Your task to perform on an android device: Go to internet settings Image 0: 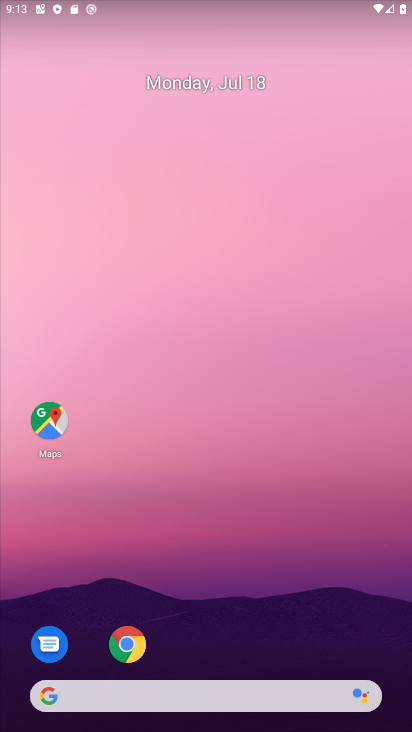
Step 0: drag from (234, 676) to (182, 61)
Your task to perform on an android device: Go to internet settings Image 1: 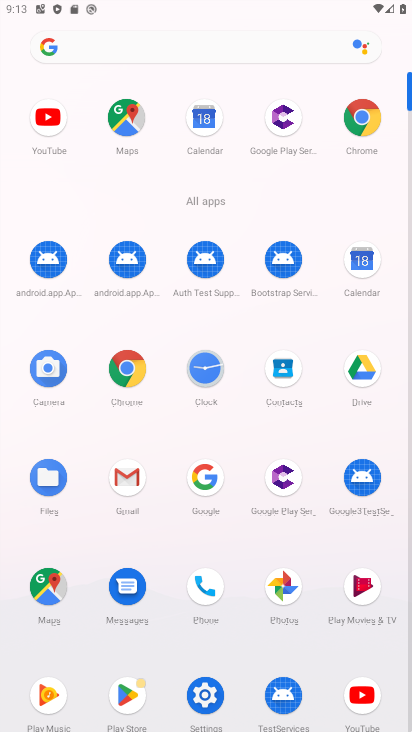
Step 1: click (199, 684)
Your task to perform on an android device: Go to internet settings Image 2: 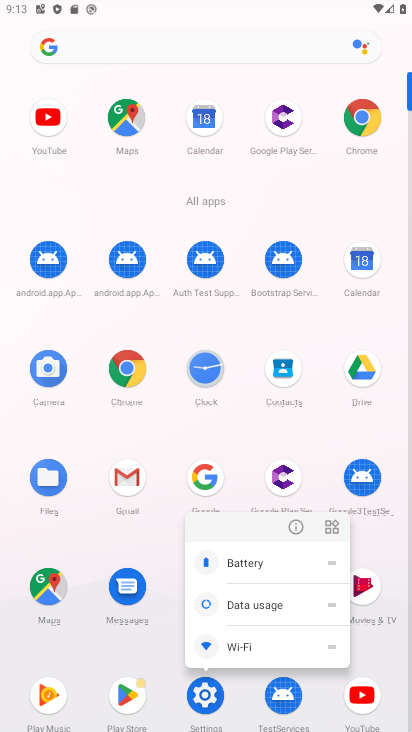
Step 2: click (189, 727)
Your task to perform on an android device: Go to internet settings Image 3: 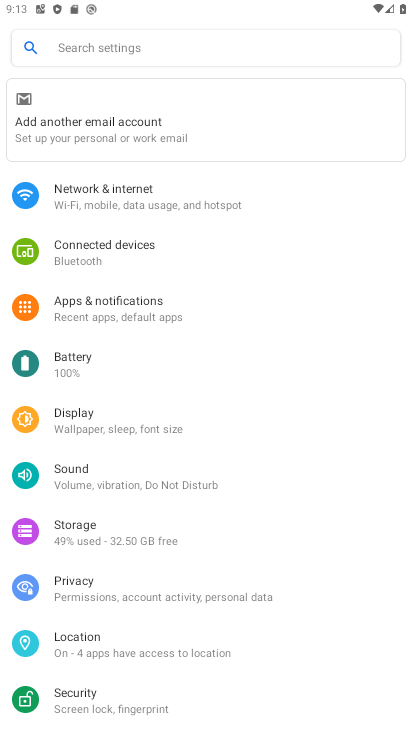
Step 3: click (102, 196)
Your task to perform on an android device: Go to internet settings Image 4: 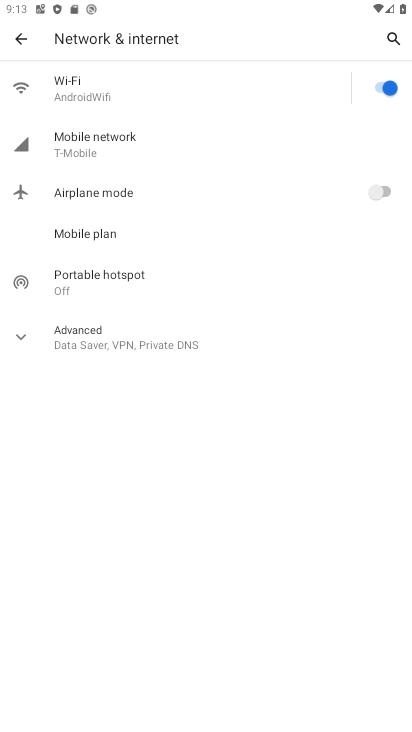
Step 4: click (80, 137)
Your task to perform on an android device: Go to internet settings Image 5: 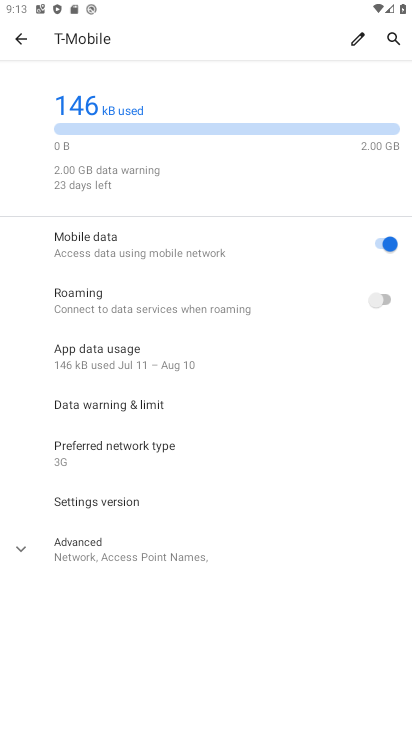
Step 5: task complete